Your task to perform on an android device: empty trash in google photos Image 0: 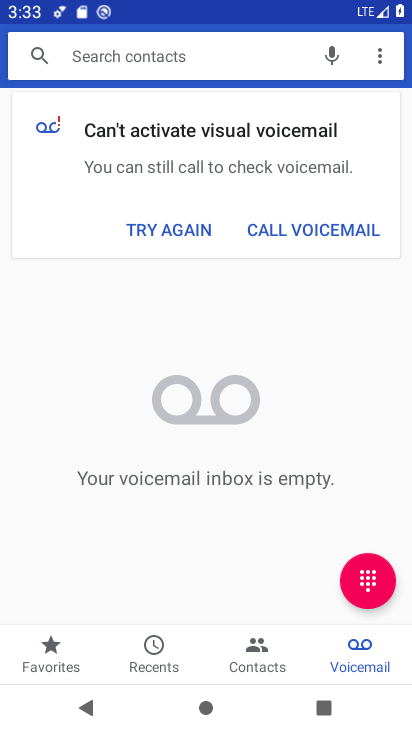
Step 0: press home button
Your task to perform on an android device: empty trash in google photos Image 1: 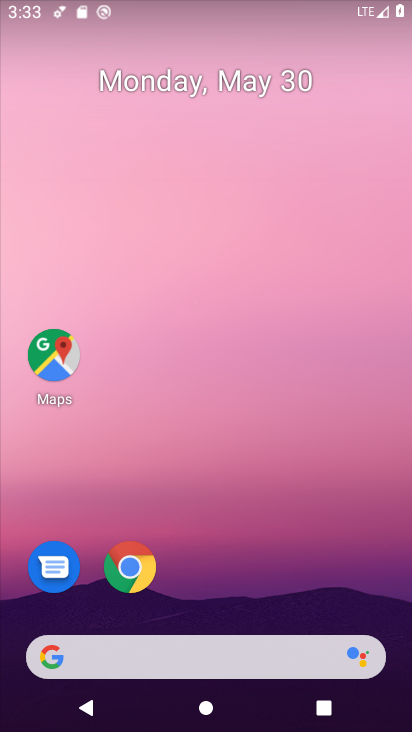
Step 1: drag from (257, 579) to (378, 17)
Your task to perform on an android device: empty trash in google photos Image 2: 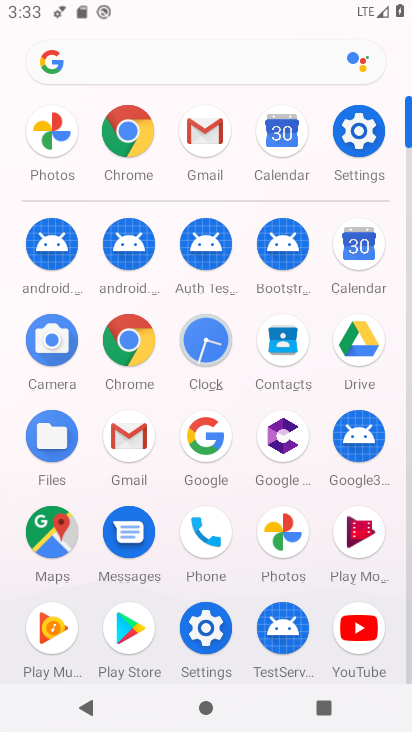
Step 2: click (259, 531)
Your task to perform on an android device: empty trash in google photos Image 3: 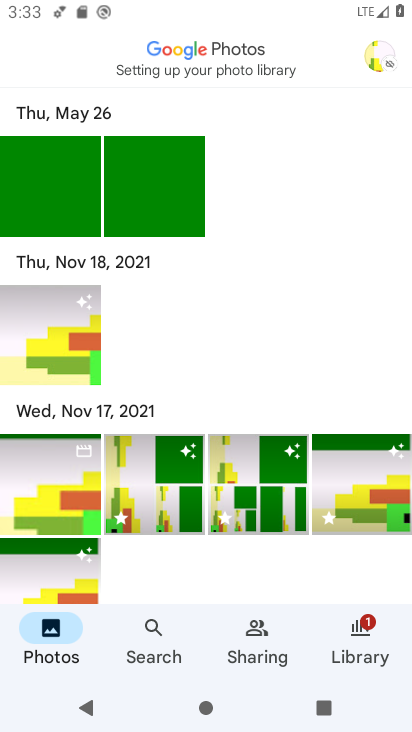
Step 3: click (359, 637)
Your task to perform on an android device: empty trash in google photos Image 4: 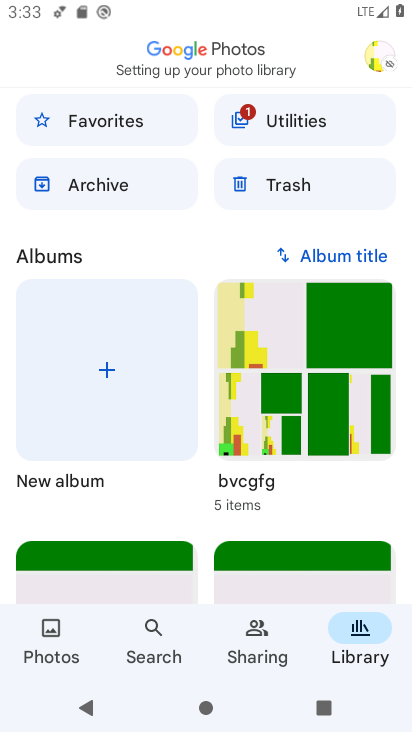
Step 4: click (250, 197)
Your task to perform on an android device: empty trash in google photos Image 5: 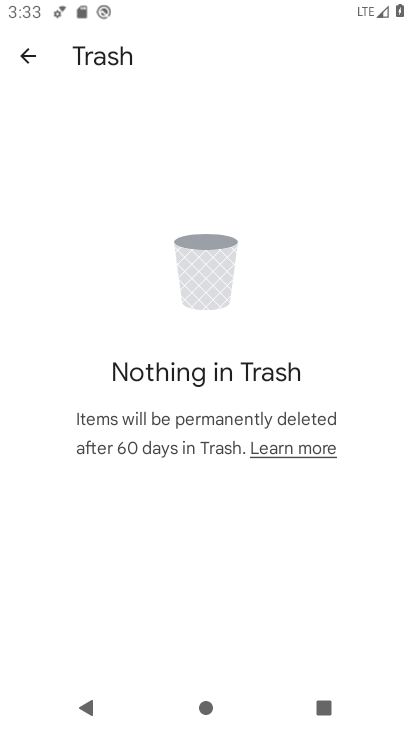
Step 5: task complete